Your task to perform on an android device: Go to sound settings Image 0: 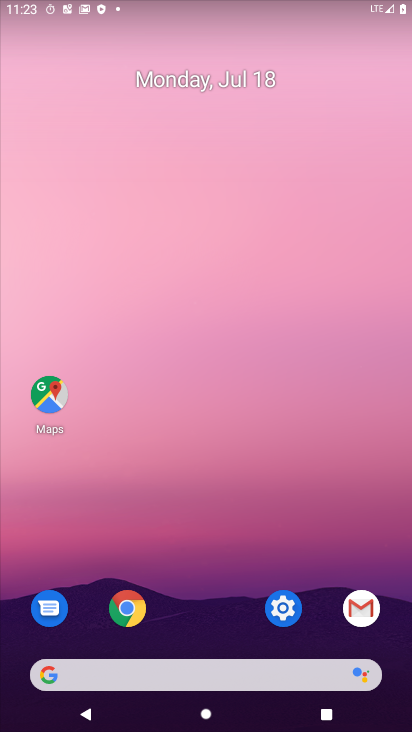
Step 0: click (285, 608)
Your task to perform on an android device: Go to sound settings Image 1: 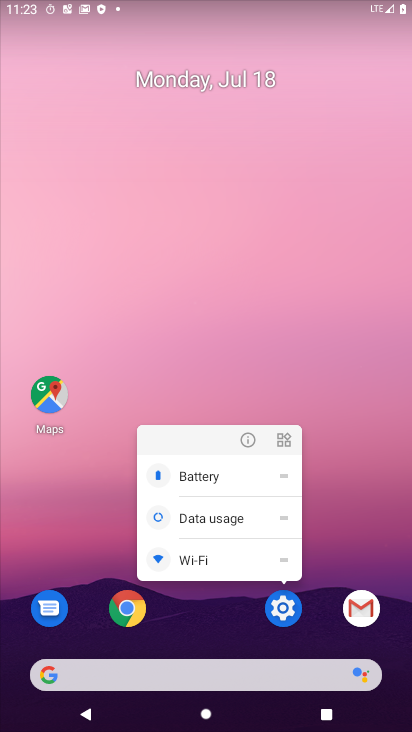
Step 1: click (281, 610)
Your task to perform on an android device: Go to sound settings Image 2: 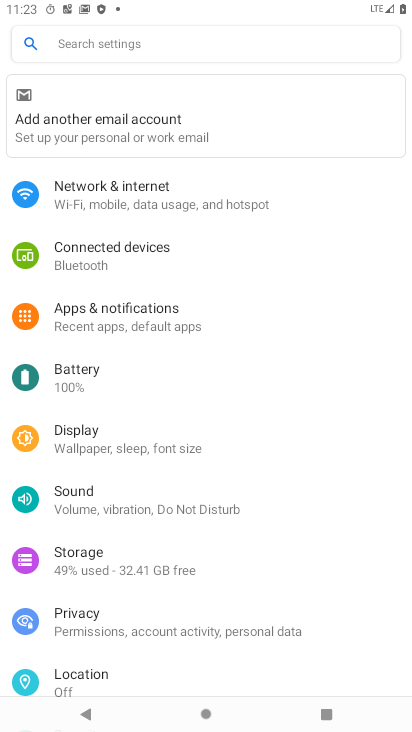
Step 2: click (87, 493)
Your task to perform on an android device: Go to sound settings Image 3: 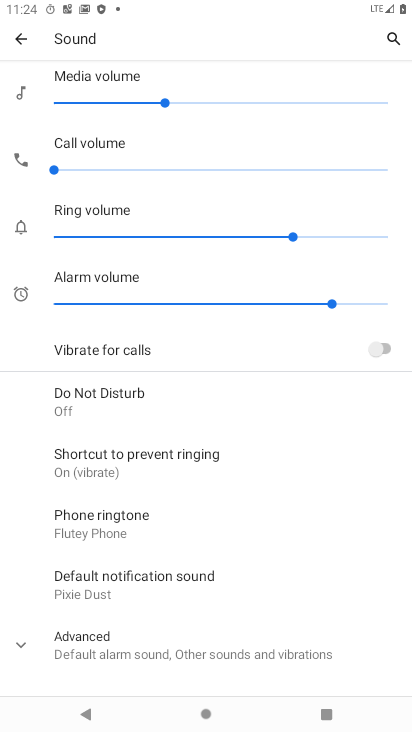
Step 3: task complete